Your task to perform on an android device: Open settings on Google Maps Image 0: 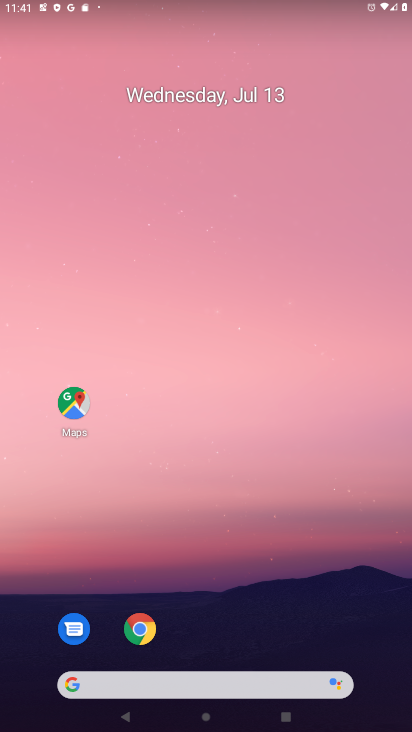
Step 0: click (78, 412)
Your task to perform on an android device: Open settings on Google Maps Image 1: 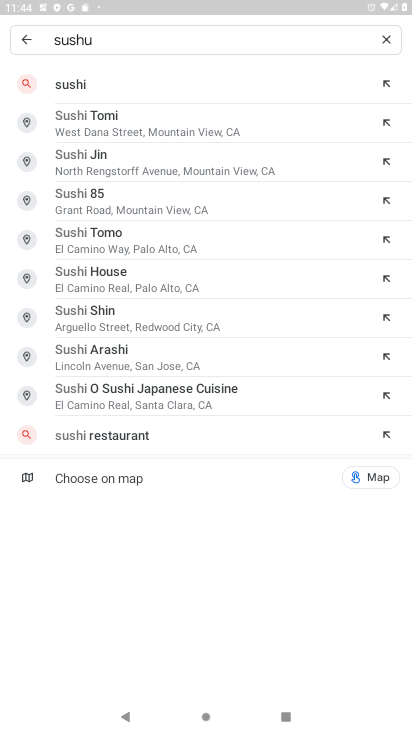
Step 1: click (141, 86)
Your task to perform on an android device: Open settings on Google Maps Image 2: 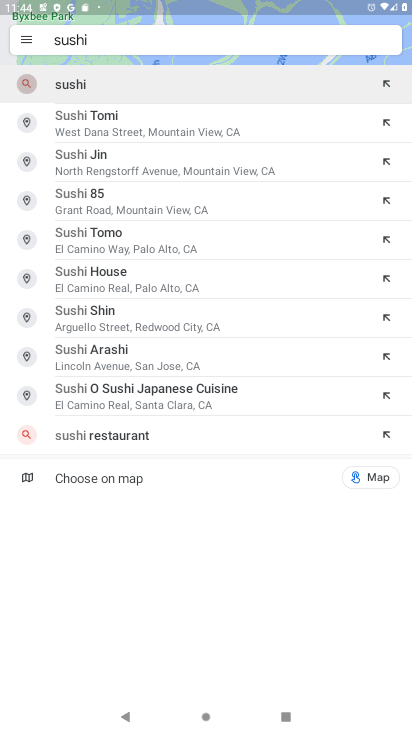
Step 2: task complete